Your task to perform on an android device: Open Chrome and go to the settings page Image 0: 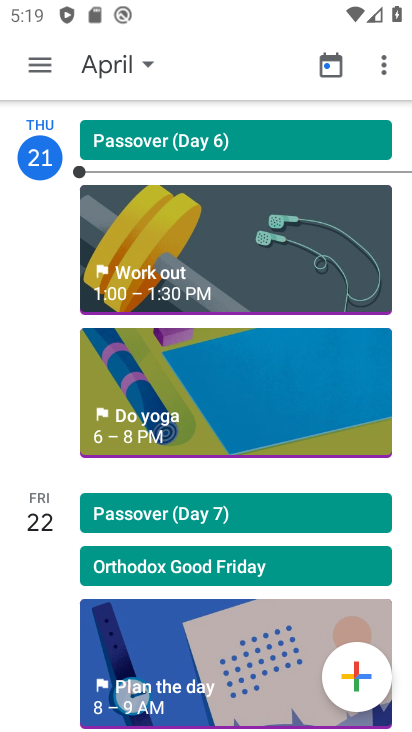
Step 0: press home button
Your task to perform on an android device: Open Chrome and go to the settings page Image 1: 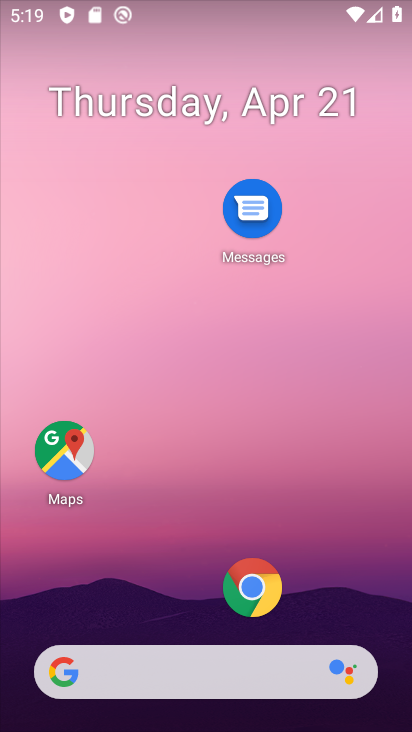
Step 1: drag from (201, 620) to (188, 63)
Your task to perform on an android device: Open Chrome and go to the settings page Image 2: 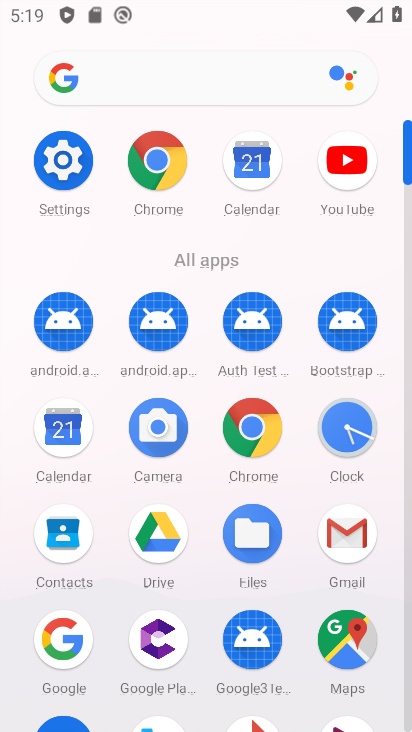
Step 2: click (253, 422)
Your task to perform on an android device: Open Chrome and go to the settings page Image 3: 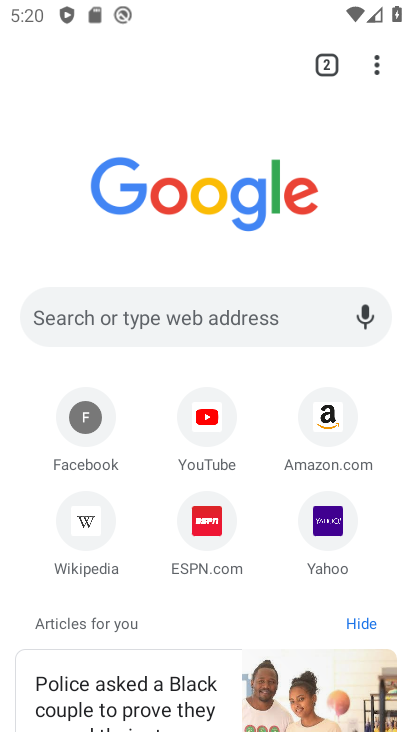
Step 3: click (381, 52)
Your task to perform on an android device: Open Chrome and go to the settings page Image 4: 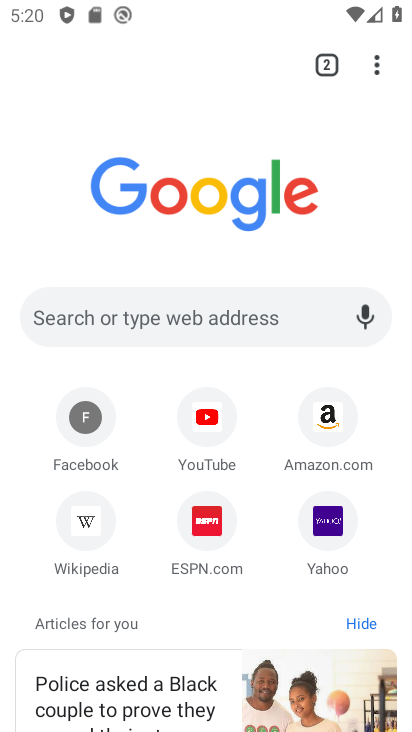
Step 4: click (372, 63)
Your task to perform on an android device: Open Chrome and go to the settings page Image 5: 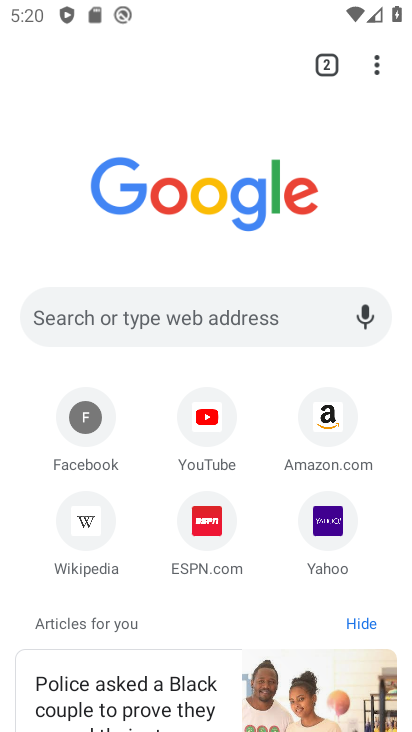
Step 5: click (381, 58)
Your task to perform on an android device: Open Chrome and go to the settings page Image 6: 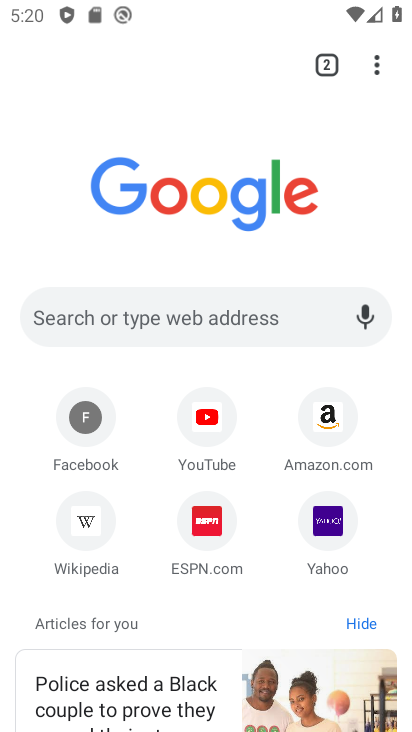
Step 6: click (372, 64)
Your task to perform on an android device: Open Chrome and go to the settings page Image 7: 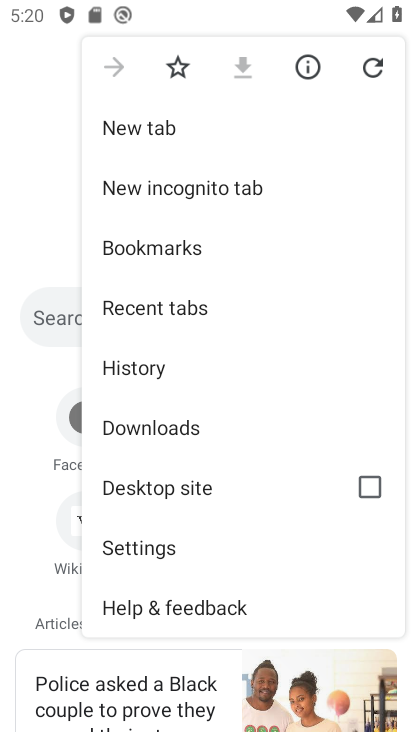
Step 7: click (187, 547)
Your task to perform on an android device: Open Chrome and go to the settings page Image 8: 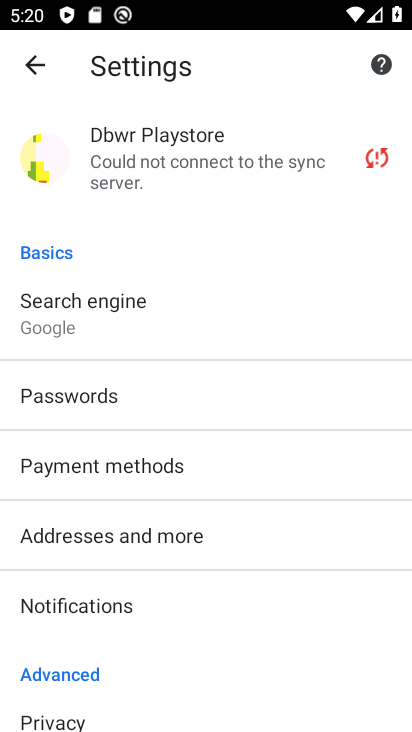
Step 8: task complete